Your task to perform on an android device: turn on showing notifications on the lock screen Image 0: 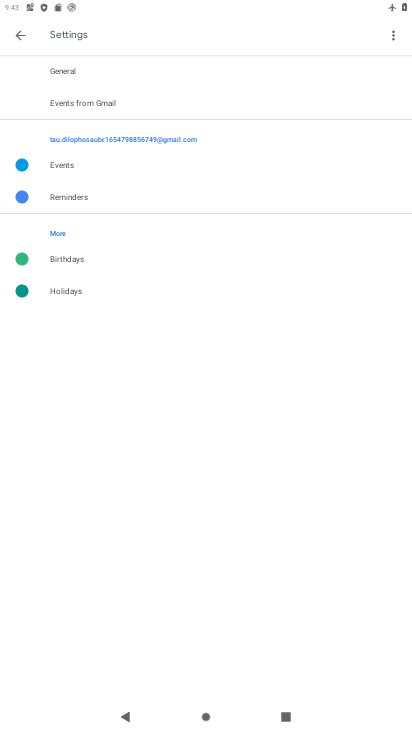
Step 0: press home button
Your task to perform on an android device: turn on showing notifications on the lock screen Image 1: 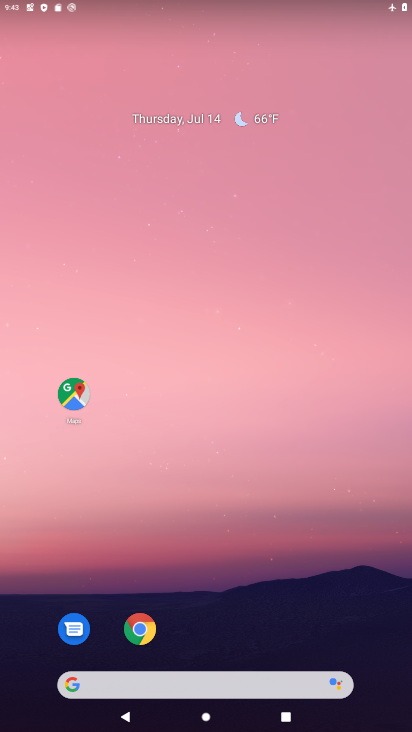
Step 1: drag from (239, 589) to (208, 10)
Your task to perform on an android device: turn on showing notifications on the lock screen Image 2: 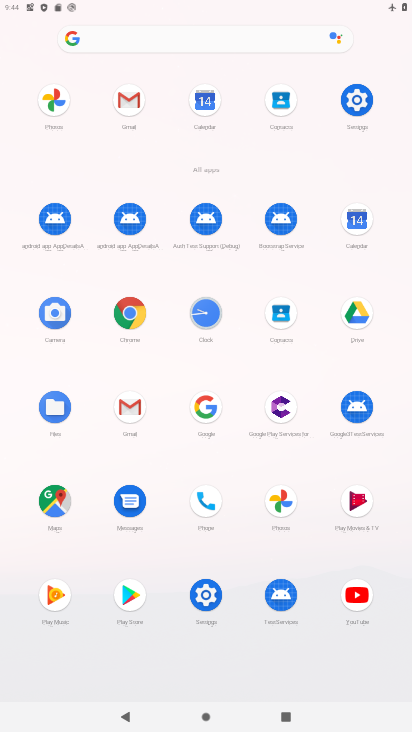
Step 2: click (364, 100)
Your task to perform on an android device: turn on showing notifications on the lock screen Image 3: 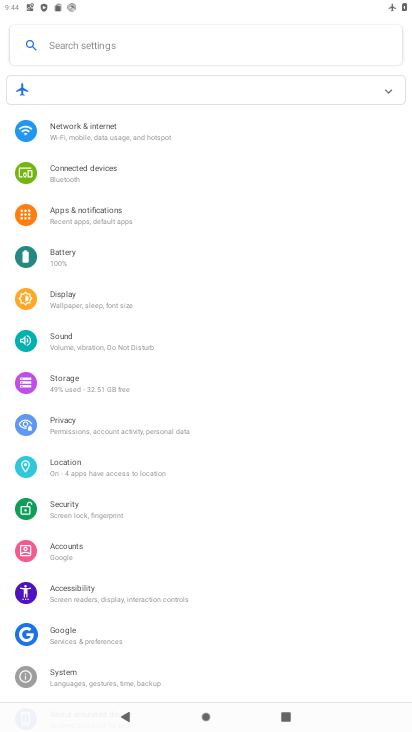
Step 3: click (87, 219)
Your task to perform on an android device: turn on showing notifications on the lock screen Image 4: 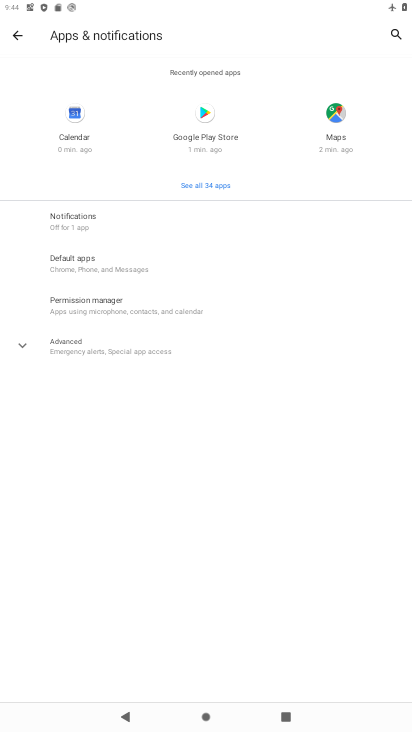
Step 4: click (74, 213)
Your task to perform on an android device: turn on showing notifications on the lock screen Image 5: 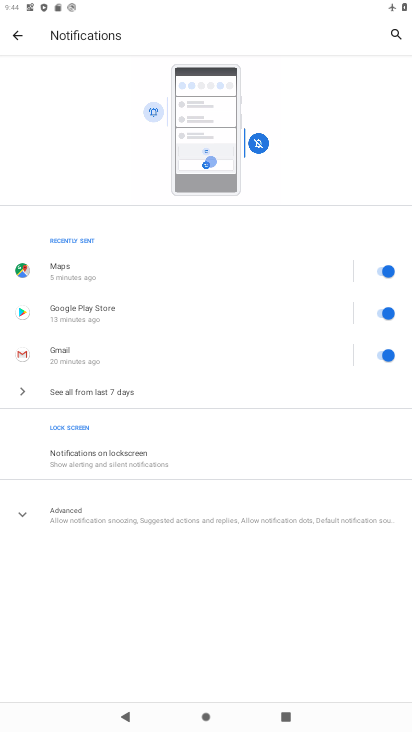
Step 5: click (129, 458)
Your task to perform on an android device: turn on showing notifications on the lock screen Image 6: 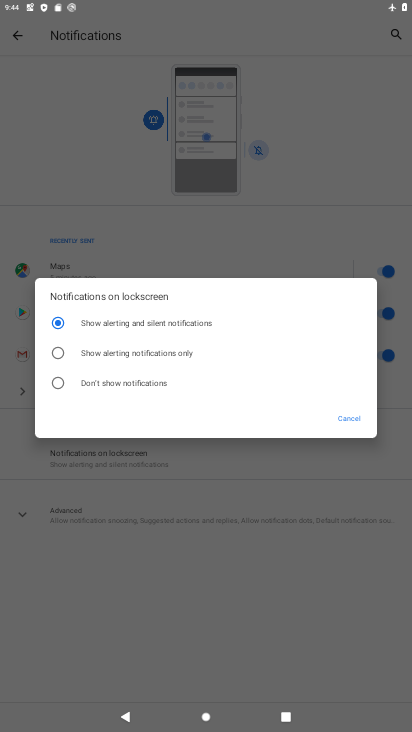
Step 6: task complete